Your task to perform on an android device: Open the stopwatch Image 0: 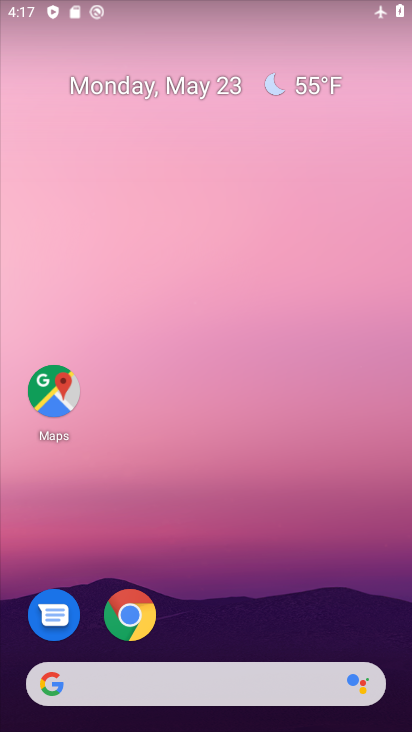
Step 0: drag from (356, 597) to (353, 296)
Your task to perform on an android device: Open the stopwatch Image 1: 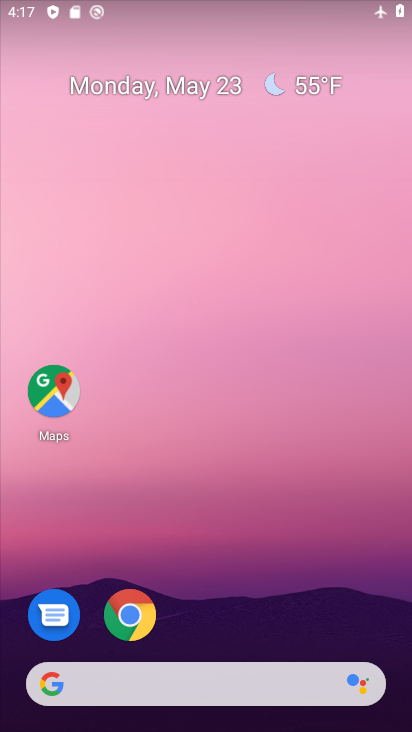
Step 1: drag from (363, 607) to (356, 308)
Your task to perform on an android device: Open the stopwatch Image 2: 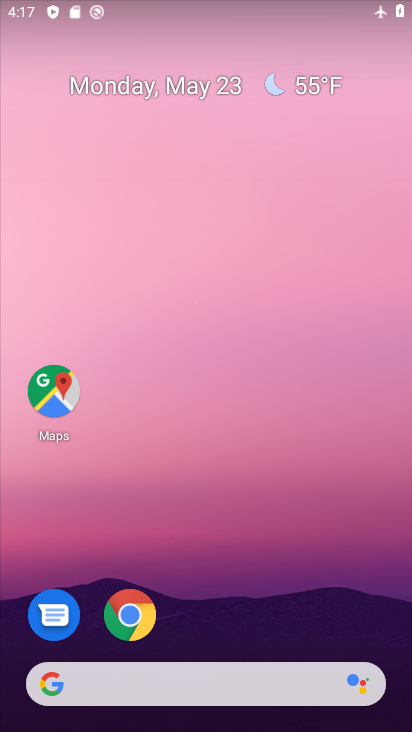
Step 2: drag from (377, 600) to (386, 247)
Your task to perform on an android device: Open the stopwatch Image 3: 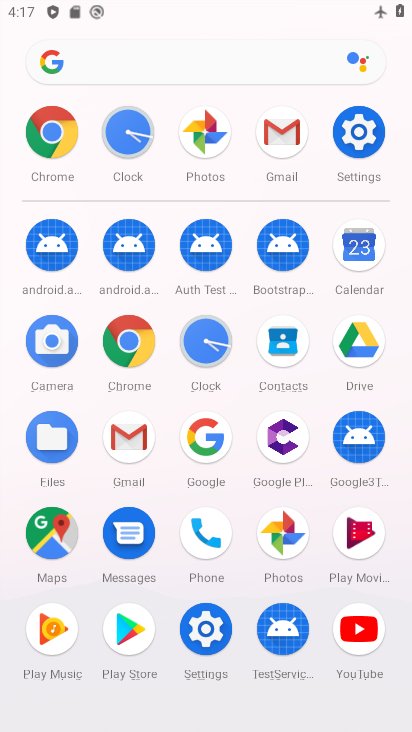
Step 3: click (195, 347)
Your task to perform on an android device: Open the stopwatch Image 4: 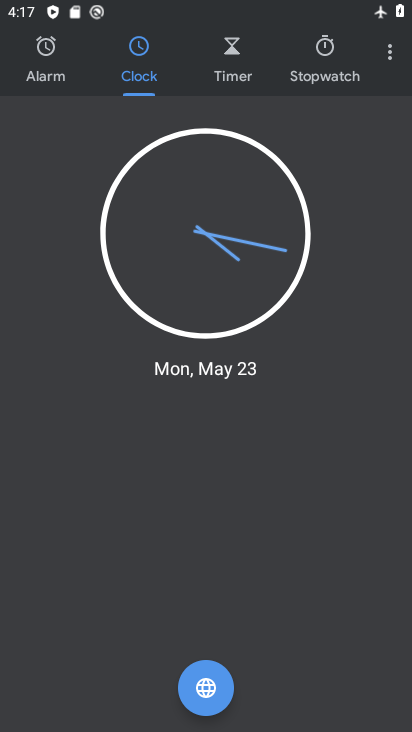
Step 4: click (312, 71)
Your task to perform on an android device: Open the stopwatch Image 5: 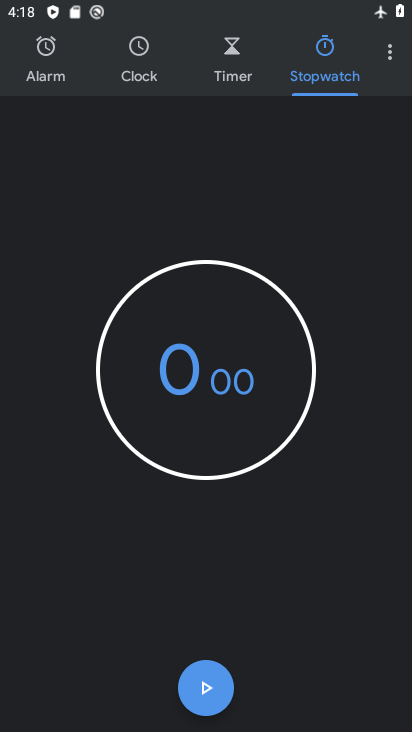
Step 5: task complete